Your task to perform on an android device: Open a new incognito tab in the chrome app Image 0: 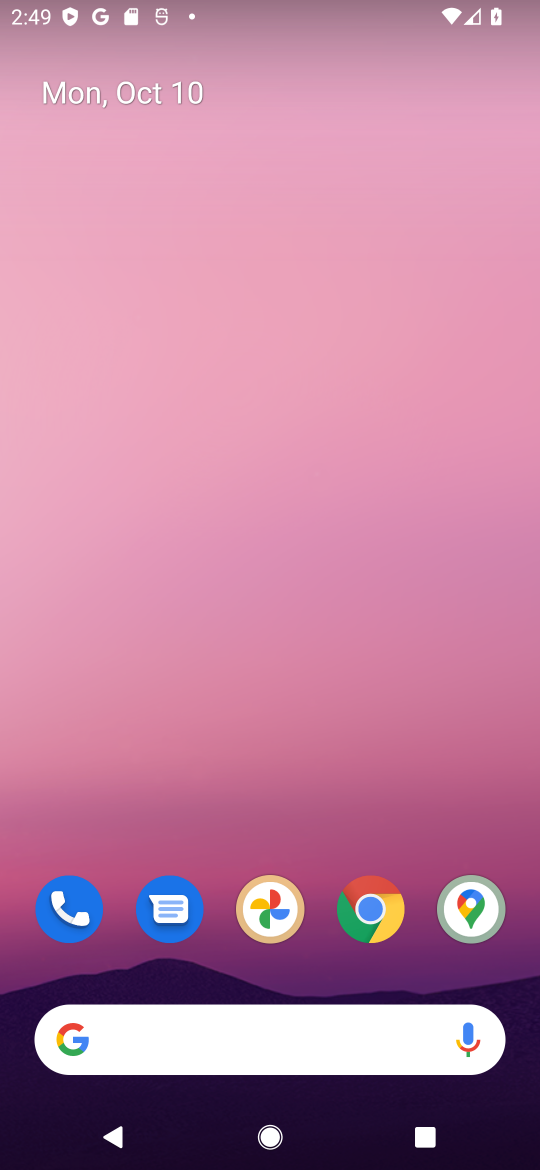
Step 0: click (375, 907)
Your task to perform on an android device: Open a new incognito tab in the chrome app Image 1: 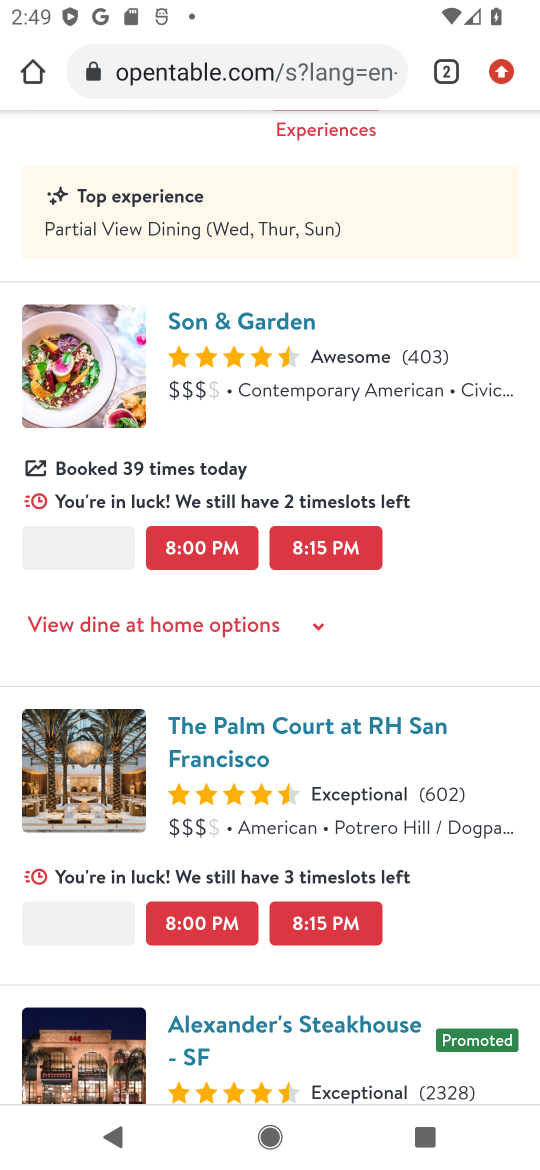
Step 1: click (283, 50)
Your task to perform on an android device: Open a new incognito tab in the chrome app Image 2: 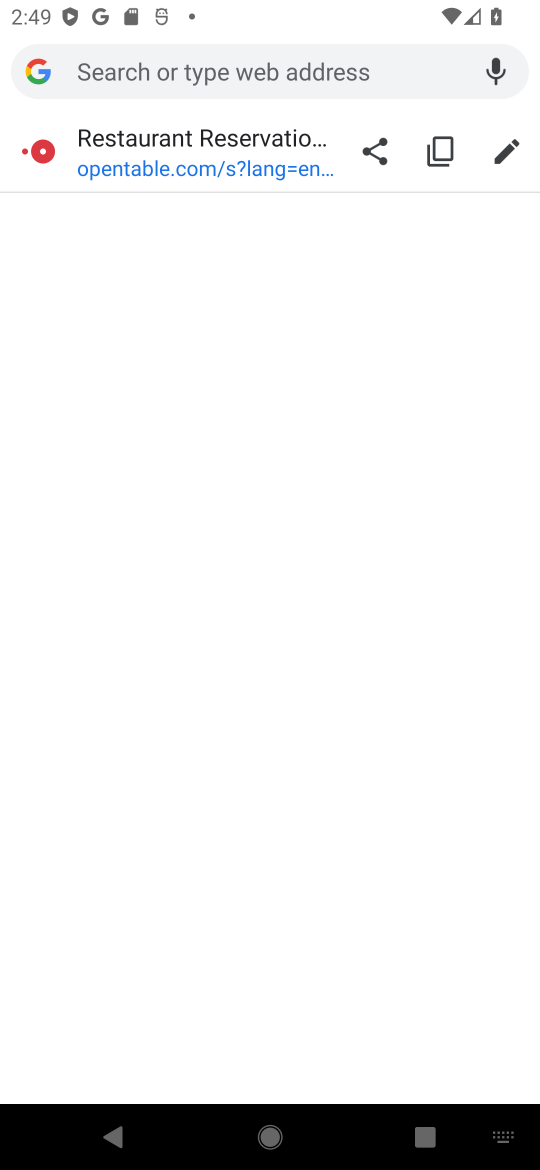
Step 2: press back button
Your task to perform on an android device: Open a new incognito tab in the chrome app Image 3: 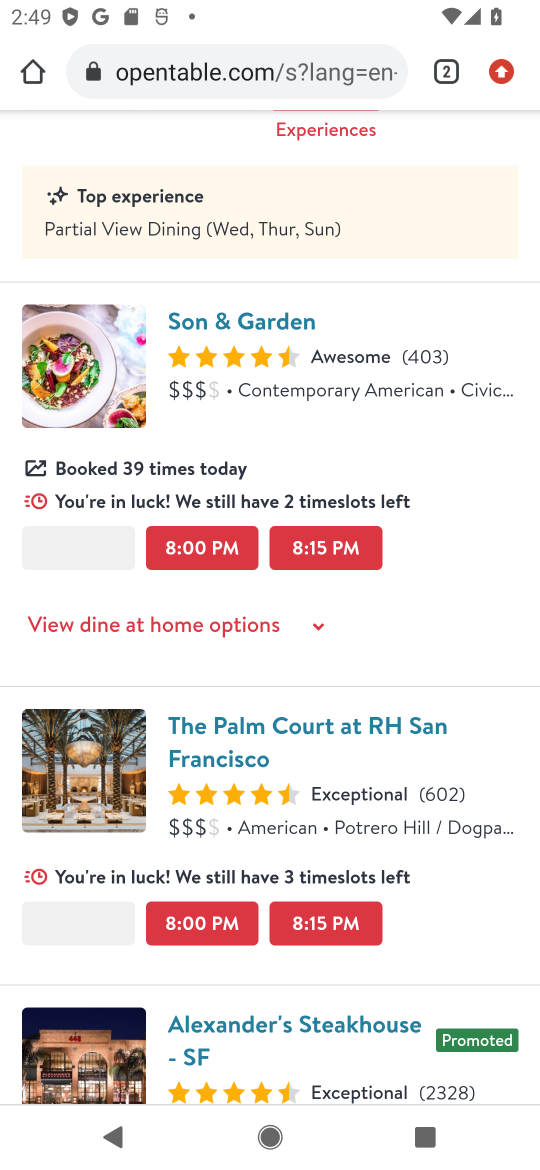
Step 3: click (438, 74)
Your task to perform on an android device: Open a new incognito tab in the chrome app Image 4: 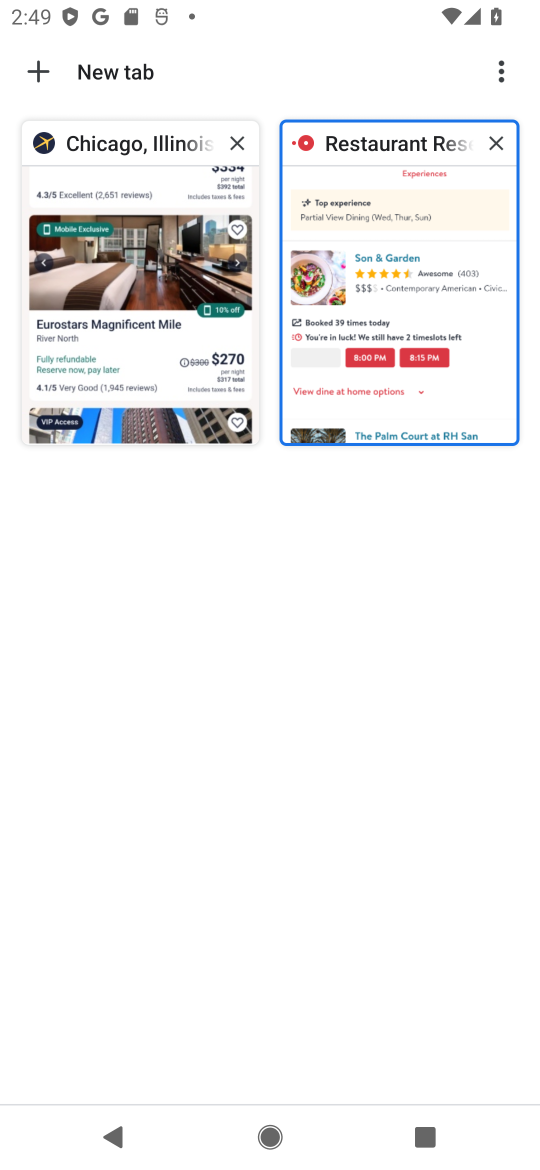
Step 4: click (496, 80)
Your task to perform on an android device: Open a new incognito tab in the chrome app Image 5: 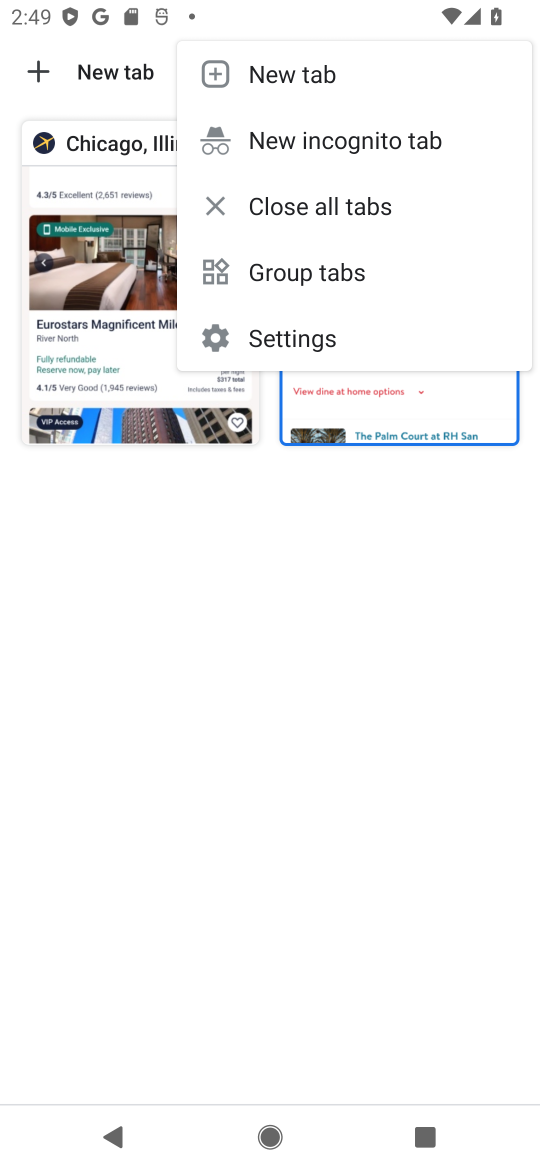
Step 5: click (351, 139)
Your task to perform on an android device: Open a new incognito tab in the chrome app Image 6: 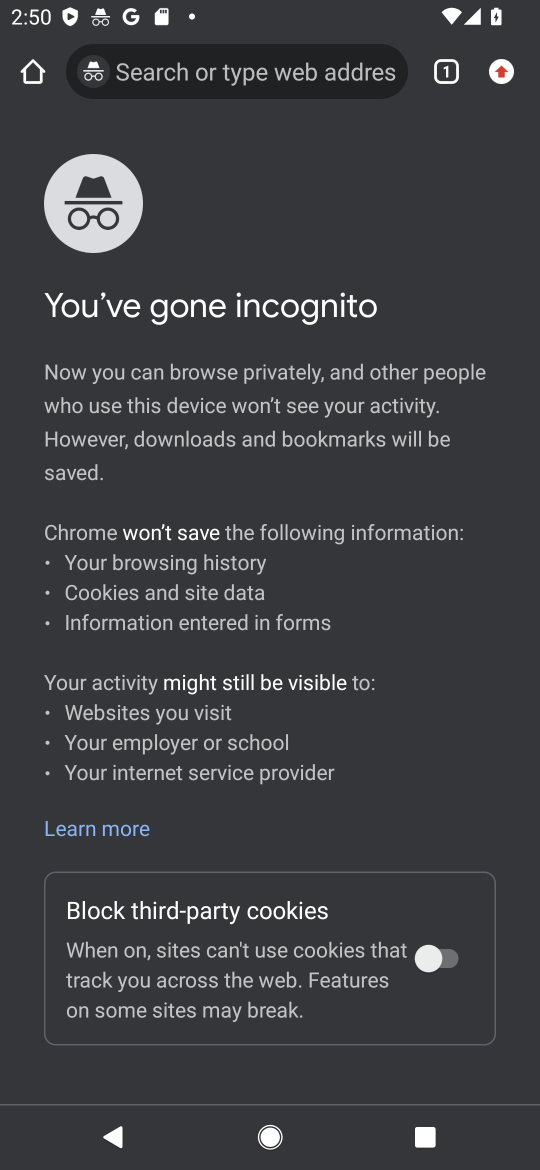
Step 6: task complete